Your task to perform on an android device: empty trash in the gmail app Image 0: 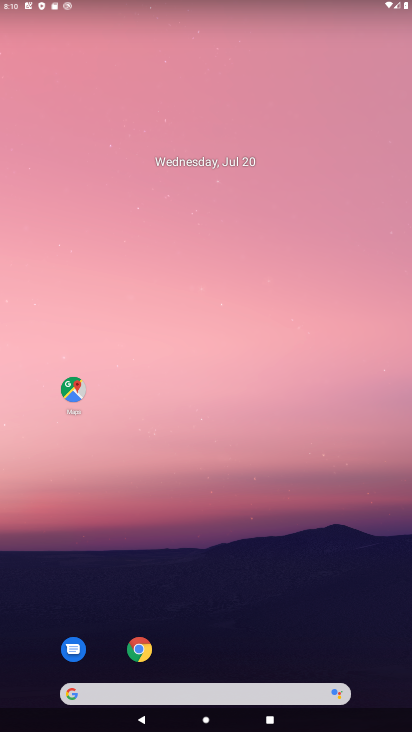
Step 0: drag from (198, 692) to (363, 204)
Your task to perform on an android device: empty trash in the gmail app Image 1: 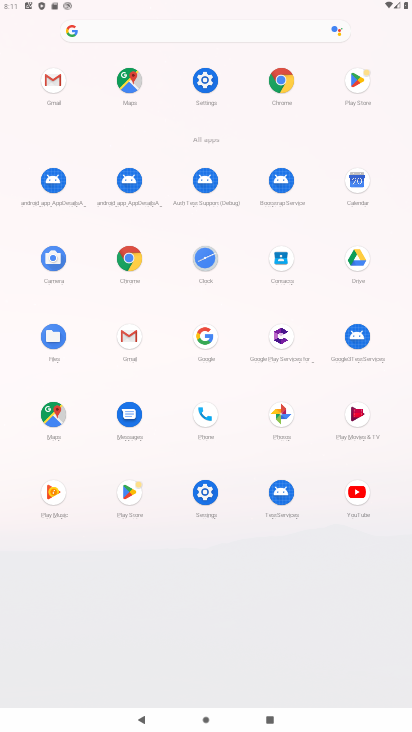
Step 1: click (55, 79)
Your task to perform on an android device: empty trash in the gmail app Image 2: 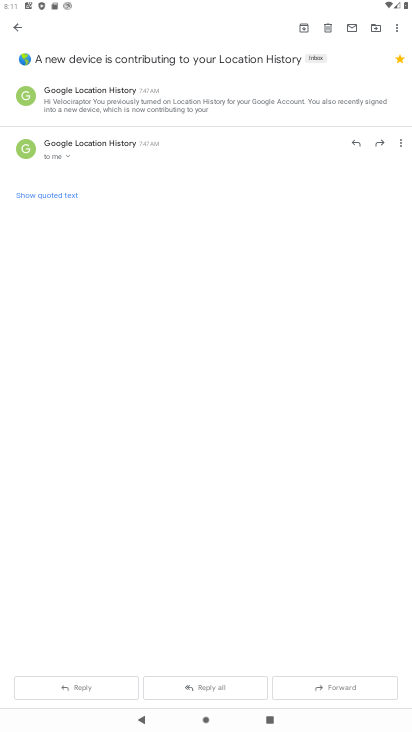
Step 2: press back button
Your task to perform on an android device: empty trash in the gmail app Image 3: 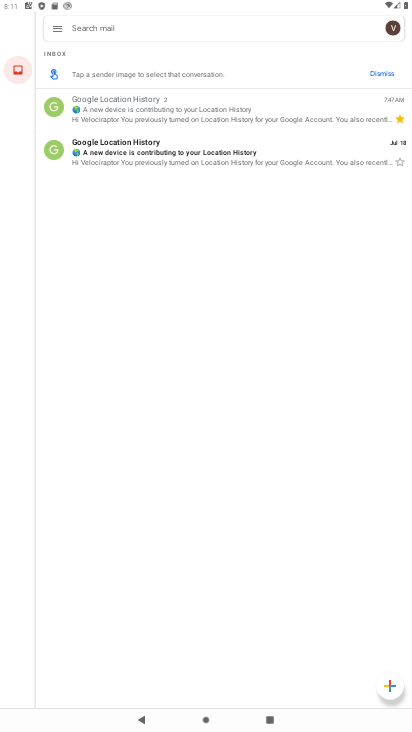
Step 3: click (57, 29)
Your task to perform on an android device: empty trash in the gmail app Image 4: 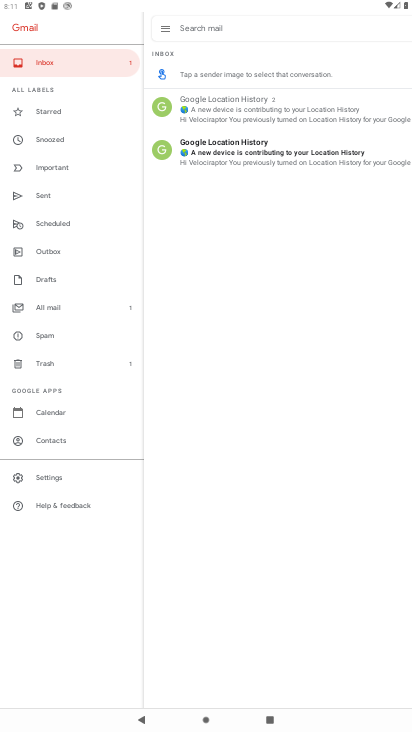
Step 4: click (48, 357)
Your task to perform on an android device: empty trash in the gmail app Image 5: 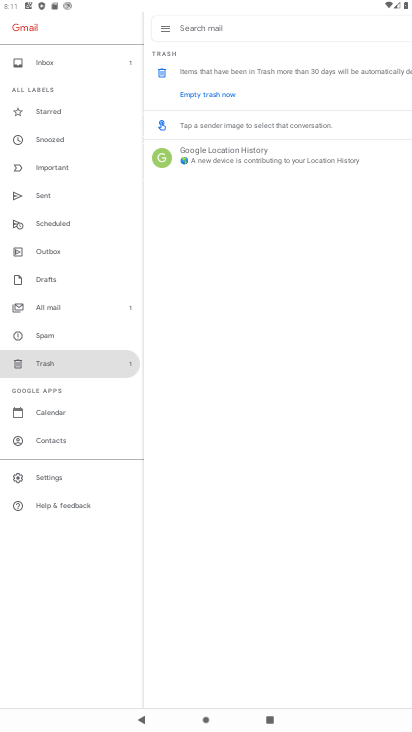
Step 5: click (197, 91)
Your task to perform on an android device: empty trash in the gmail app Image 6: 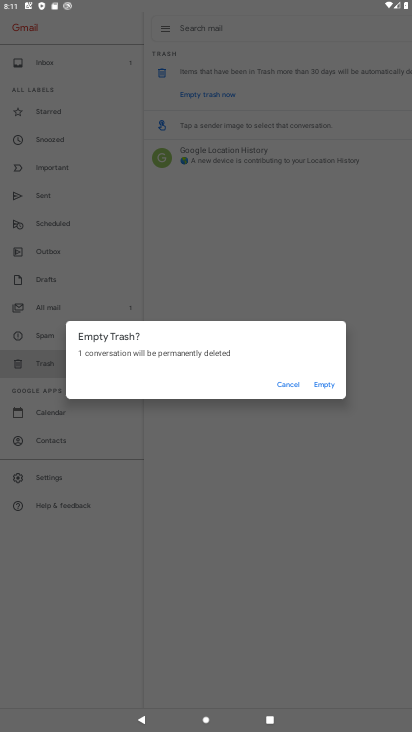
Step 6: click (320, 385)
Your task to perform on an android device: empty trash in the gmail app Image 7: 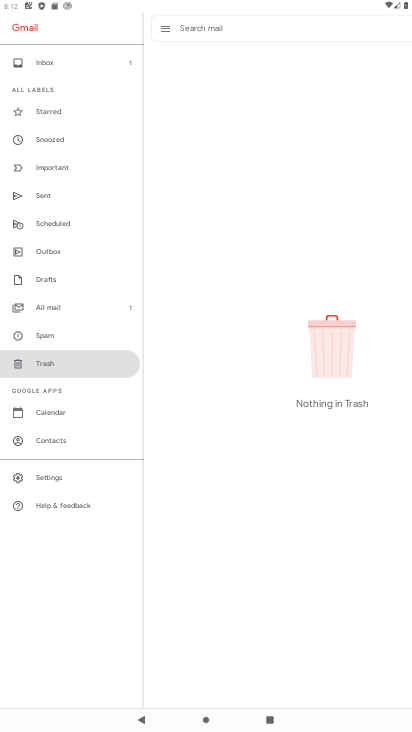
Step 7: task complete